Your task to perform on an android device: Do I have any events today? Image 0: 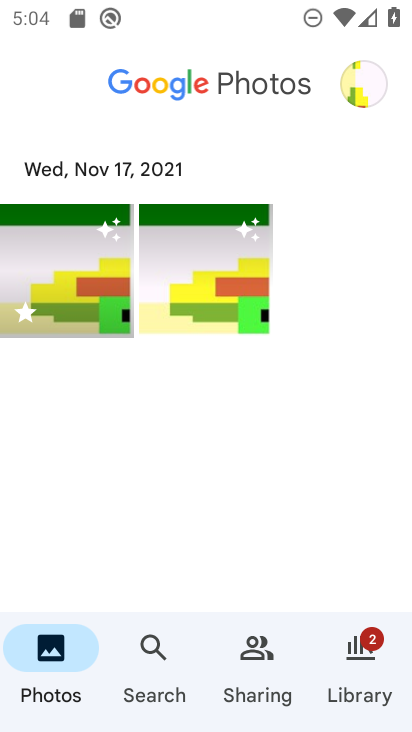
Step 0: press back button
Your task to perform on an android device: Do I have any events today? Image 1: 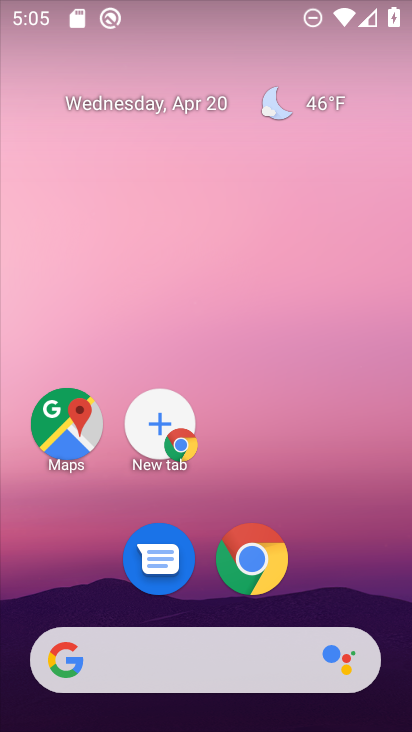
Step 1: drag from (340, 547) to (286, 151)
Your task to perform on an android device: Do I have any events today? Image 2: 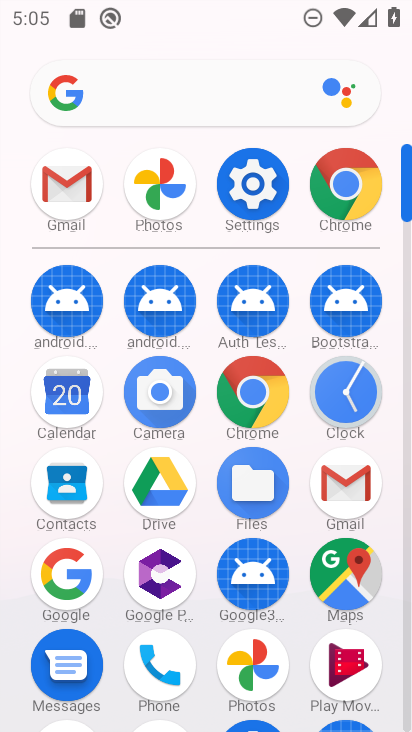
Step 2: click (66, 399)
Your task to perform on an android device: Do I have any events today? Image 3: 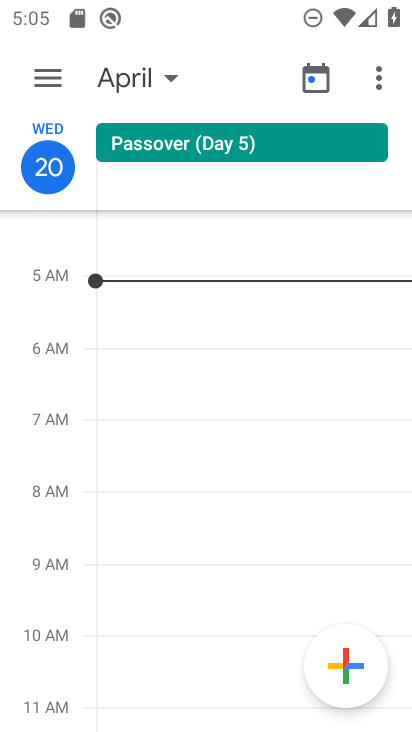
Step 3: task complete